Your task to perform on an android device: delete browsing data in the chrome app Image 0: 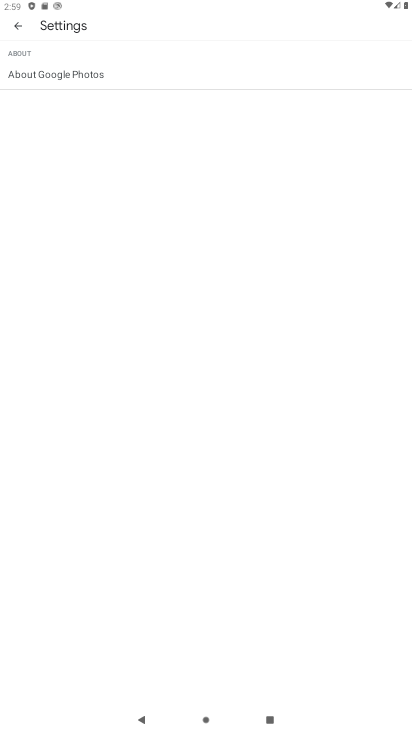
Step 0: press home button
Your task to perform on an android device: delete browsing data in the chrome app Image 1: 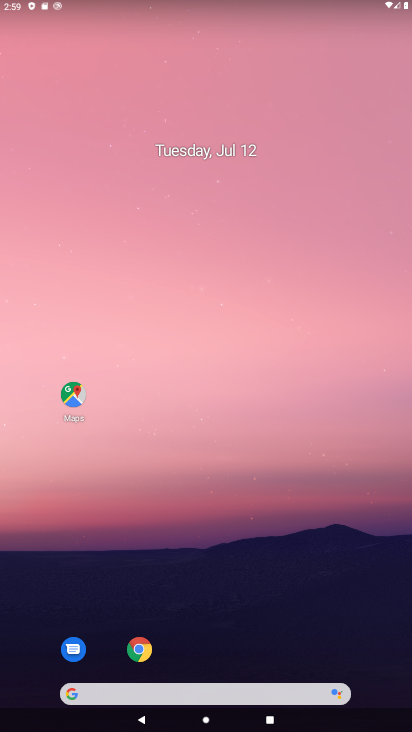
Step 1: click (148, 651)
Your task to perform on an android device: delete browsing data in the chrome app Image 2: 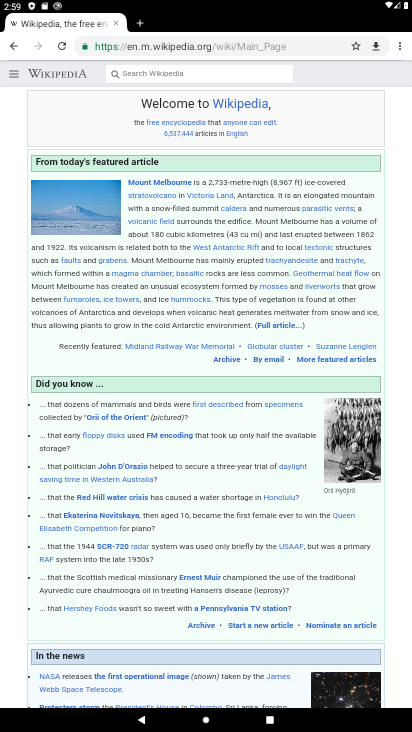
Step 2: drag from (397, 44) to (317, 144)
Your task to perform on an android device: delete browsing data in the chrome app Image 3: 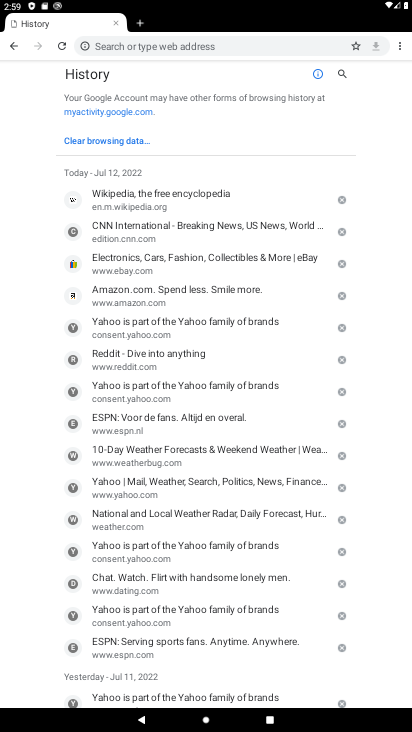
Step 3: click (108, 145)
Your task to perform on an android device: delete browsing data in the chrome app Image 4: 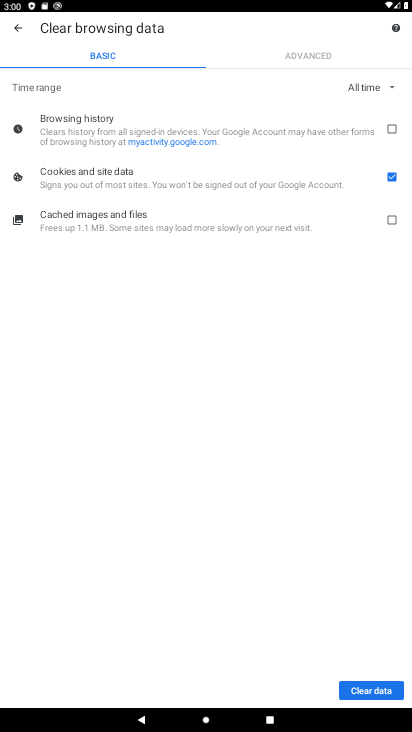
Step 4: task complete